Your task to perform on an android device: Go to internet settings Image 0: 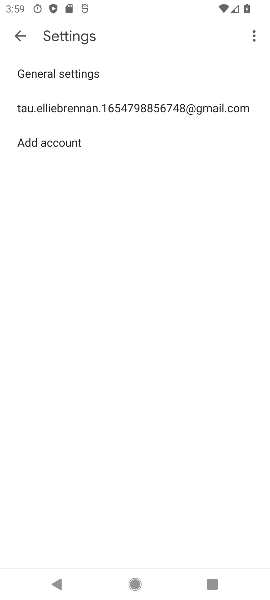
Step 0: click (22, 34)
Your task to perform on an android device: Go to internet settings Image 1: 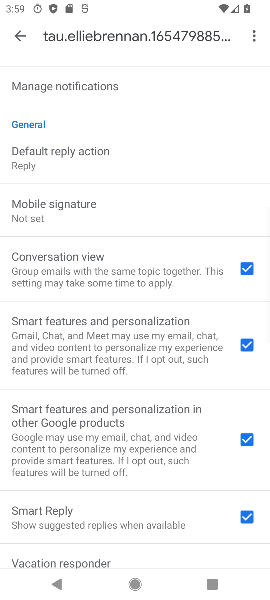
Step 1: click (23, 33)
Your task to perform on an android device: Go to internet settings Image 2: 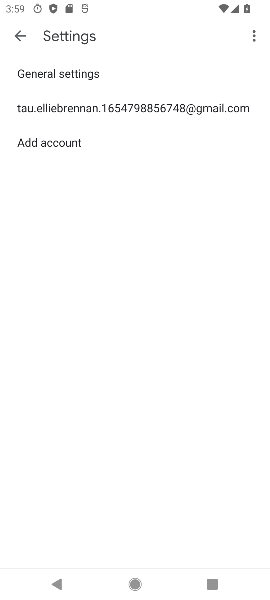
Step 2: click (18, 32)
Your task to perform on an android device: Go to internet settings Image 3: 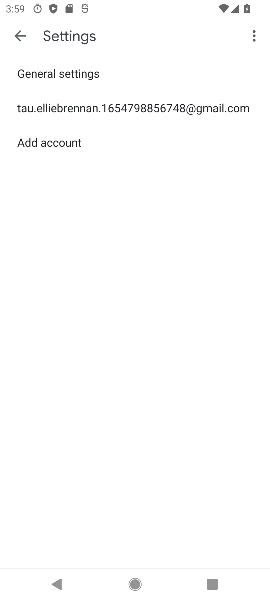
Step 3: click (18, 32)
Your task to perform on an android device: Go to internet settings Image 4: 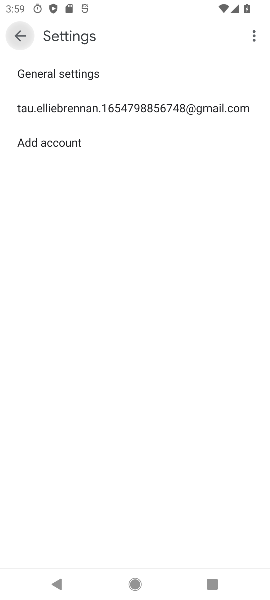
Step 4: click (18, 32)
Your task to perform on an android device: Go to internet settings Image 5: 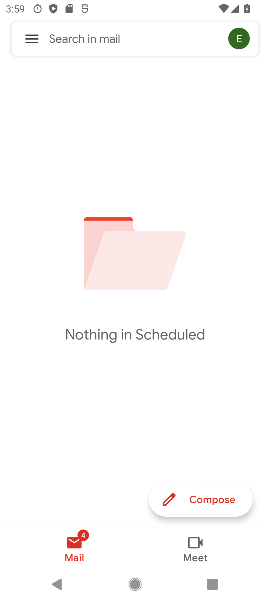
Step 5: press back button
Your task to perform on an android device: Go to internet settings Image 6: 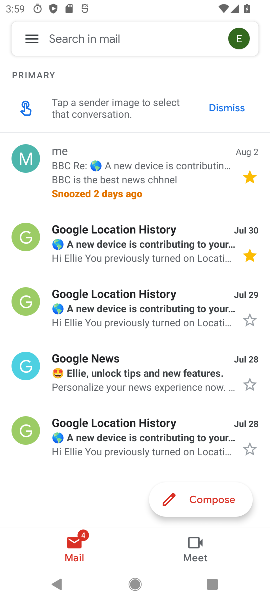
Step 6: press home button
Your task to perform on an android device: Go to internet settings Image 7: 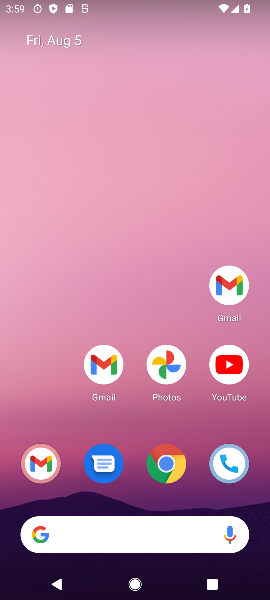
Step 7: drag from (166, 539) to (163, 169)
Your task to perform on an android device: Go to internet settings Image 8: 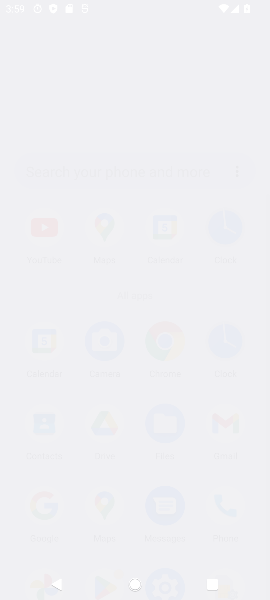
Step 8: drag from (195, 440) to (161, 248)
Your task to perform on an android device: Go to internet settings Image 9: 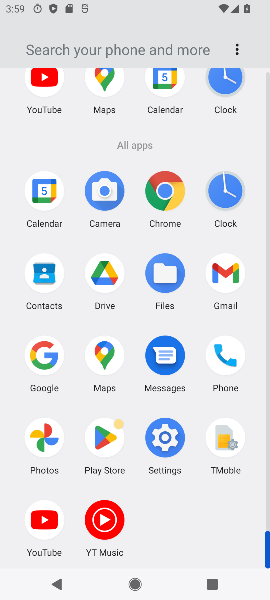
Step 9: click (167, 439)
Your task to perform on an android device: Go to internet settings Image 10: 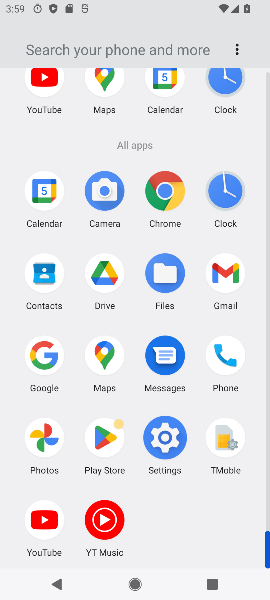
Step 10: click (167, 439)
Your task to perform on an android device: Go to internet settings Image 11: 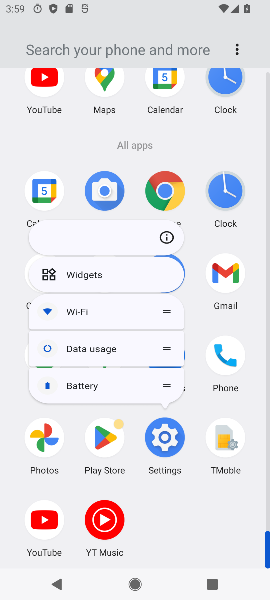
Step 11: click (167, 439)
Your task to perform on an android device: Go to internet settings Image 12: 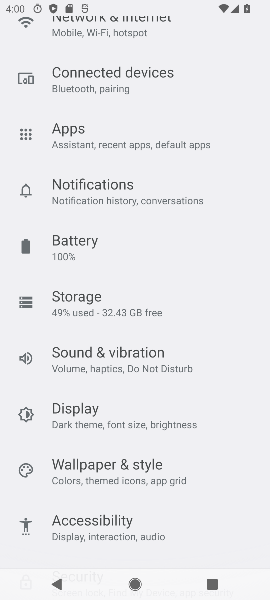
Step 12: click (160, 434)
Your task to perform on an android device: Go to internet settings Image 13: 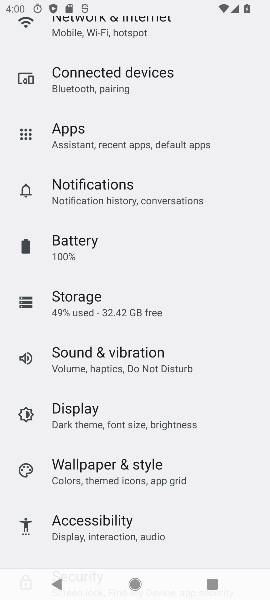
Step 13: drag from (147, 96) to (113, 413)
Your task to perform on an android device: Go to internet settings Image 14: 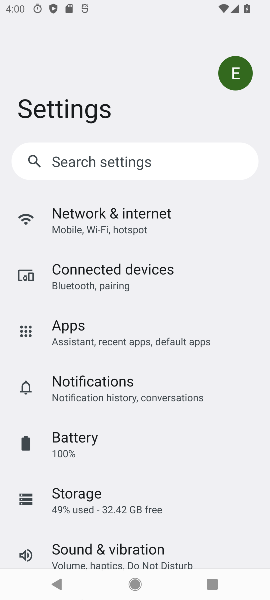
Step 14: drag from (111, 125) to (127, 478)
Your task to perform on an android device: Go to internet settings Image 15: 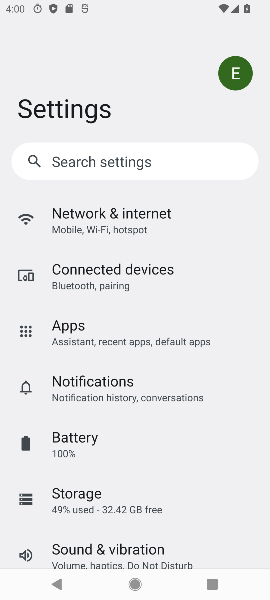
Step 15: click (102, 217)
Your task to perform on an android device: Go to internet settings Image 16: 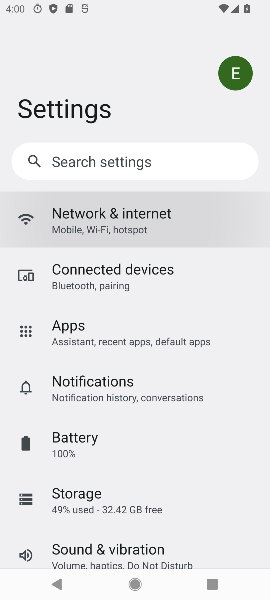
Step 16: click (102, 217)
Your task to perform on an android device: Go to internet settings Image 17: 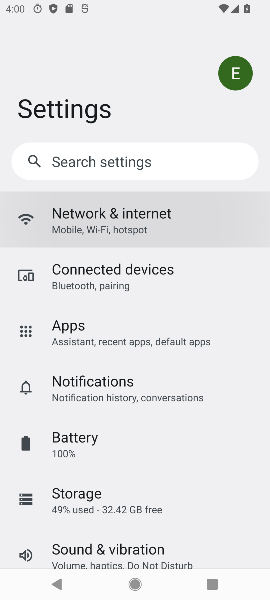
Step 17: click (102, 217)
Your task to perform on an android device: Go to internet settings Image 18: 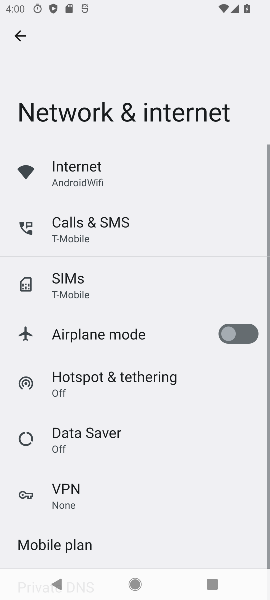
Step 18: click (80, 173)
Your task to perform on an android device: Go to internet settings Image 19: 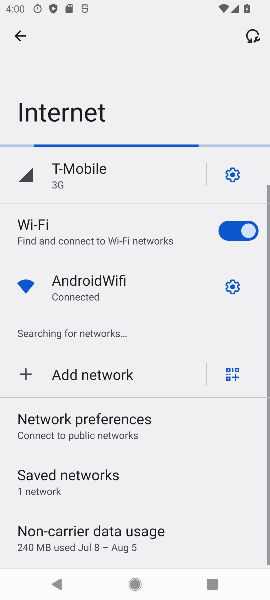
Step 19: task complete